Your task to perform on an android device: open wifi settings Image 0: 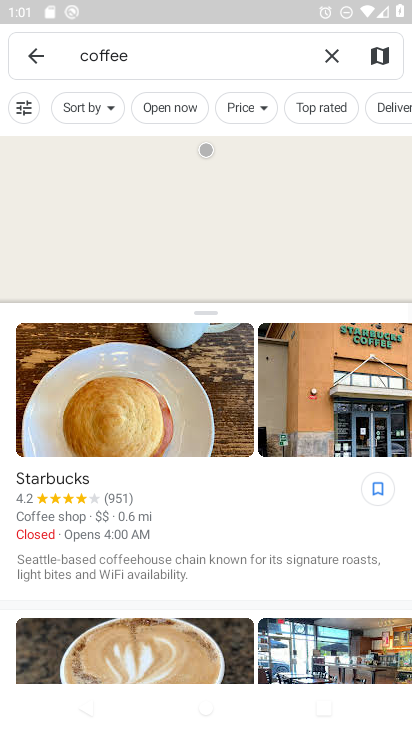
Step 0: drag from (170, 14) to (116, 551)
Your task to perform on an android device: open wifi settings Image 1: 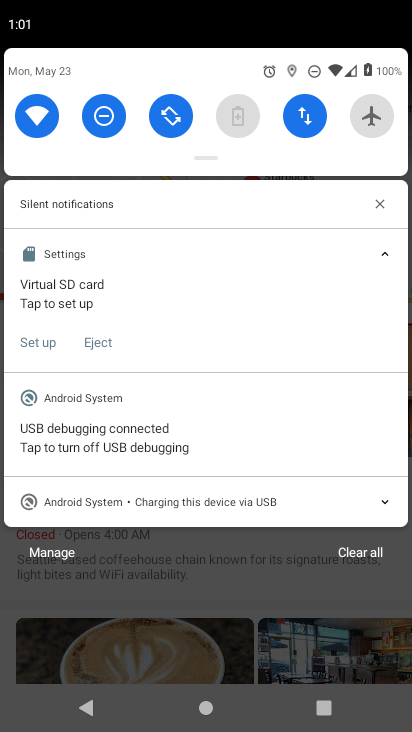
Step 1: click (44, 120)
Your task to perform on an android device: open wifi settings Image 2: 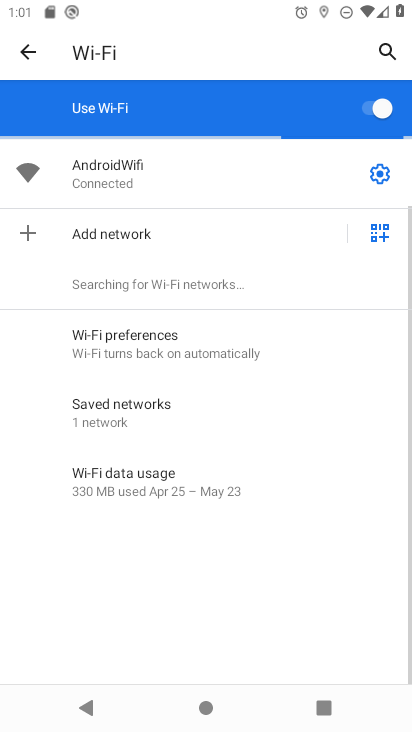
Step 2: task complete